Your task to perform on an android device: add a label to a message in the gmail app Image 0: 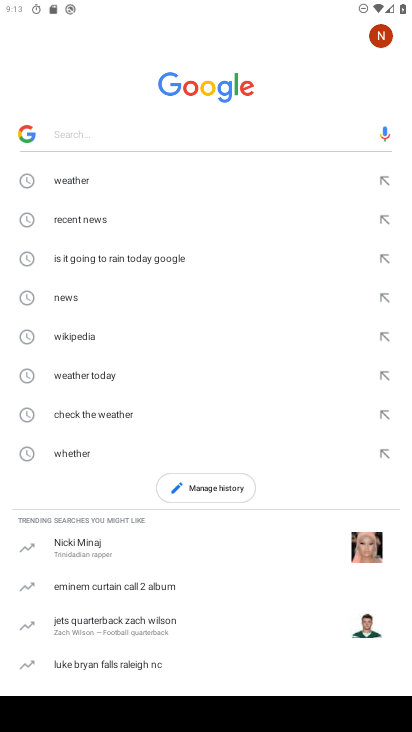
Step 0: press home button
Your task to perform on an android device: add a label to a message in the gmail app Image 1: 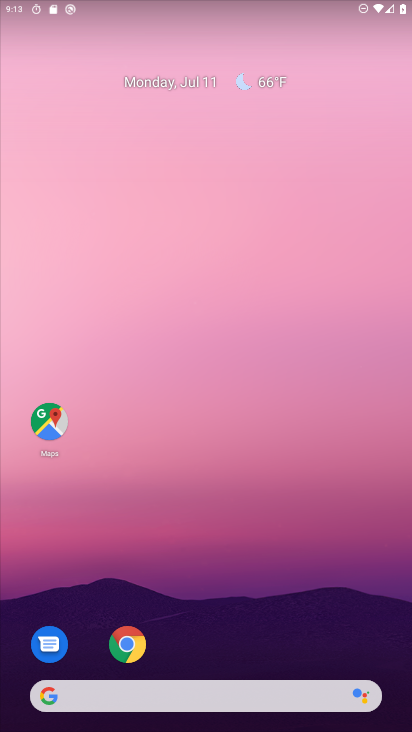
Step 1: drag from (320, 599) to (286, 163)
Your task to perform on an android device: add a label to a message in the gmail app Image 2: 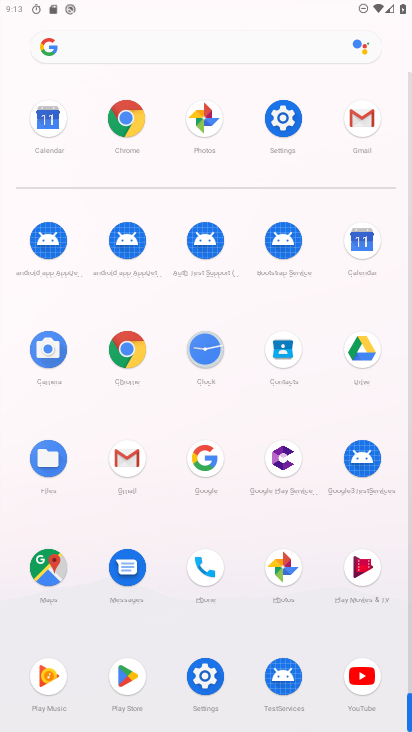
Step 2: click (377, 121)
Your task to perform on an android device: add a label to a message in the gmail app Image 3: 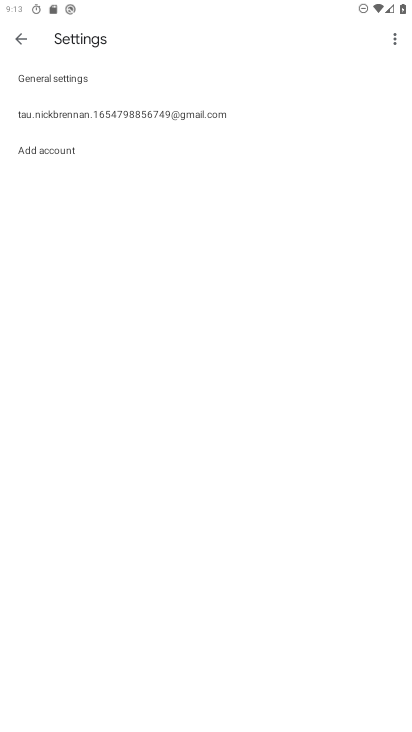
Step 3: click (22, 36)
Your task to perform on an android device: add a label to a message in the gmail app Image 4: 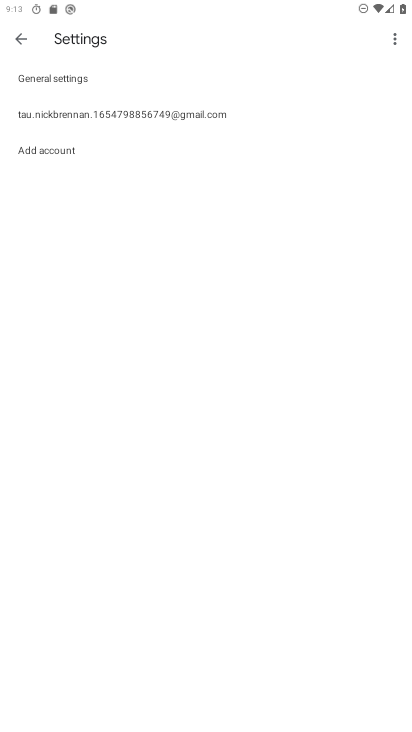
Step 4: click (22, 36)
Your task to perform on an android device: add a label to a message in the gmail app Image 5: 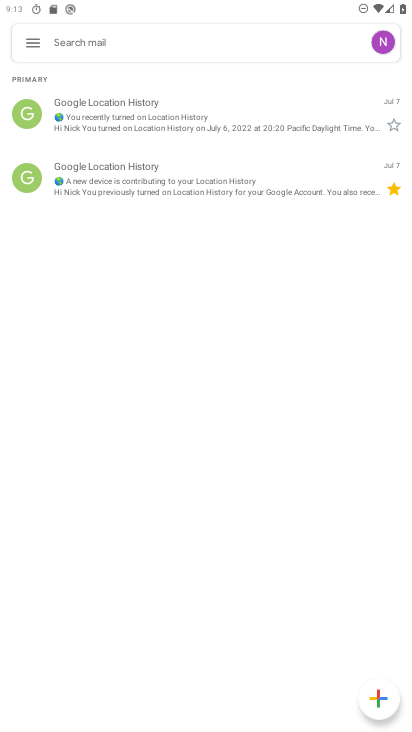
Step 5: click (192, 123)
Your task to perform on an android device: add a label to a message in the gmail app Image 6: 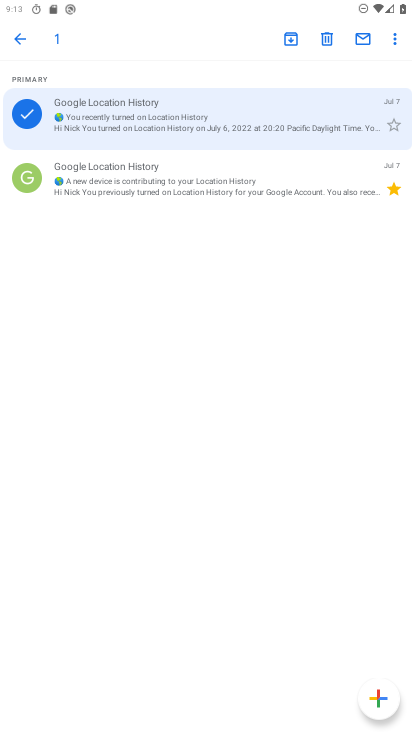
Step 6: click (394, 29)
Your task to perform on an android device: add a label to a message in the gmail app Image 7: 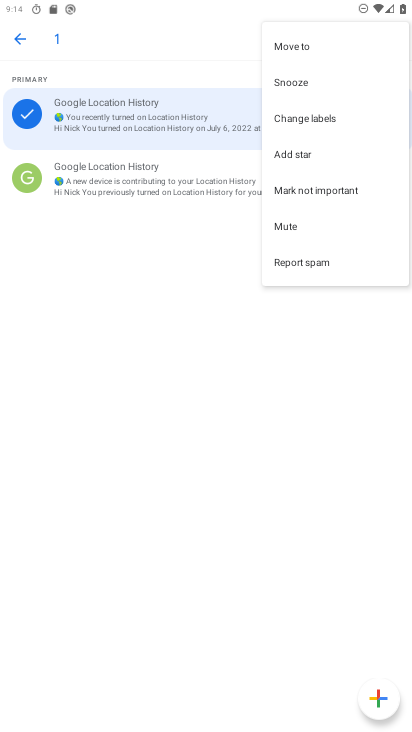
Step 7: click (173, 135)
Your task to perform on an android device: add a label to a message in the gmail app Image 8: 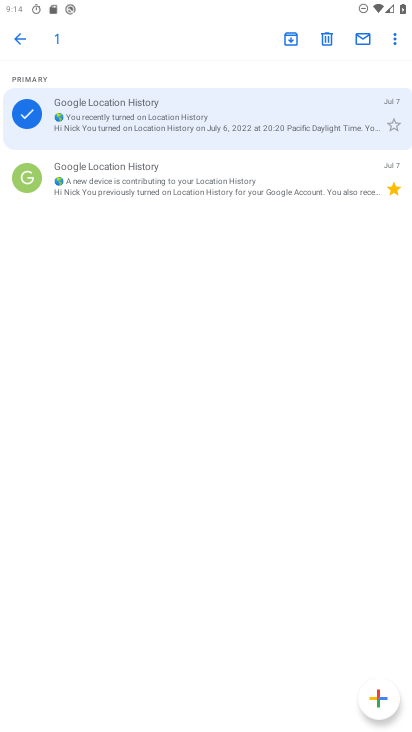
Step 8: click (239, 111)
Your task to perform on an android device: add a label to a message in the gmail app Image 9: 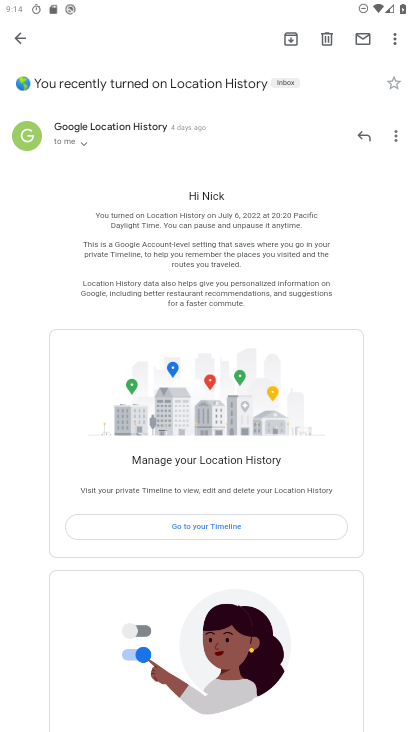
Step 9: click (393, 35)
Your task to perform on an android device: add a label to a message in the gmail app Image 10: 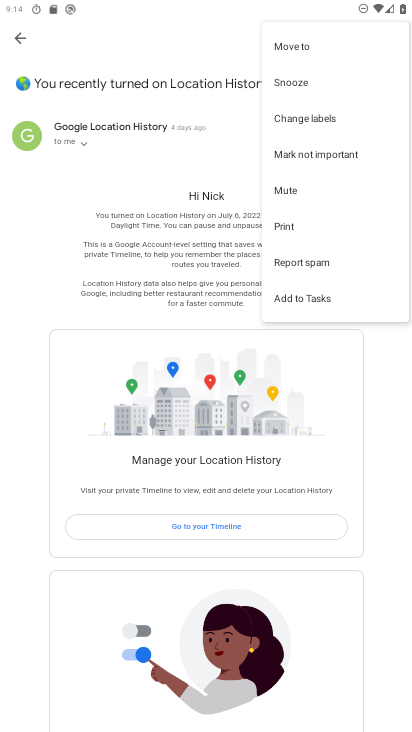
Step 10: click (124, 158)
Your task to perform on an android device: add a label to a message in the gmail app Image 11: 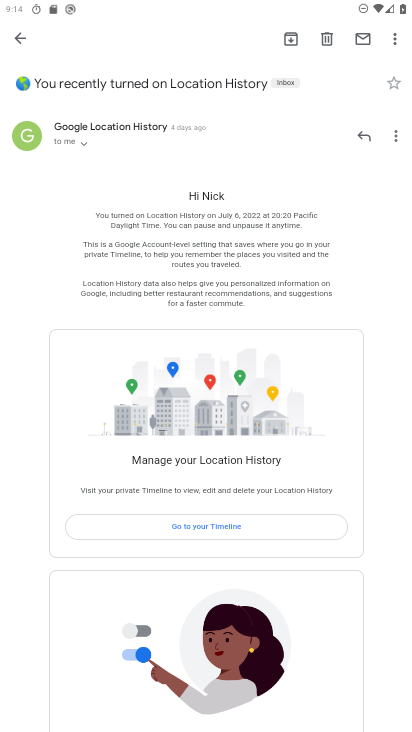
Step 11: task complete